Your task to perform on an android device: star an email in the gmail app Image 0: 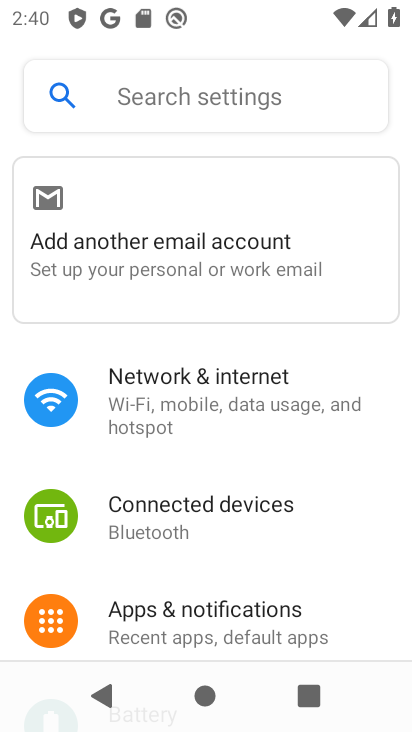
Step 0: press home button
Your task to perform on an android device: star an email in the gmail app Image 1: 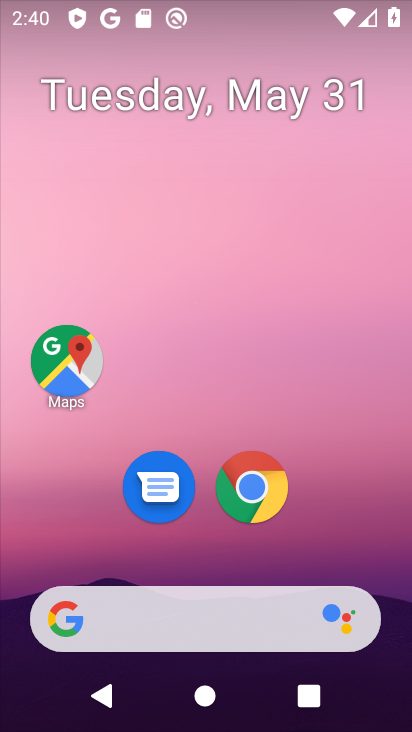
Step 1: drag from (37, 580) to (248, 130)
Your task to perform on an android device: star an email in the gmail app Image 2: 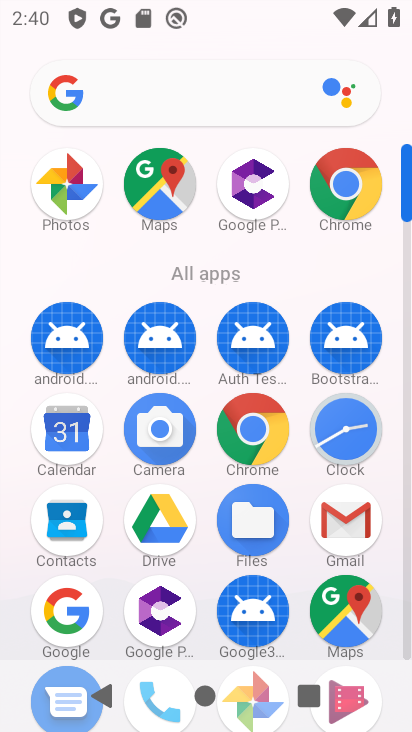
Step 2: drag from (142, 632) to (246, 383)
Your task to perform on an android device: star an email in the gmail app Image 3: 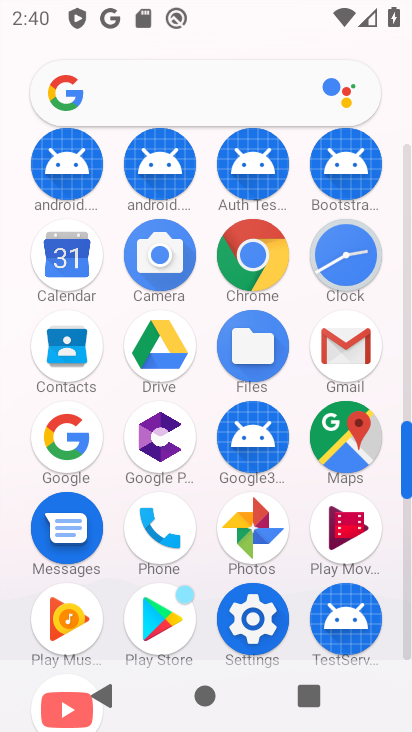
Step 3: click (344, 348)
Your task to perform on an android device: star an email in the gmail app Image 4: 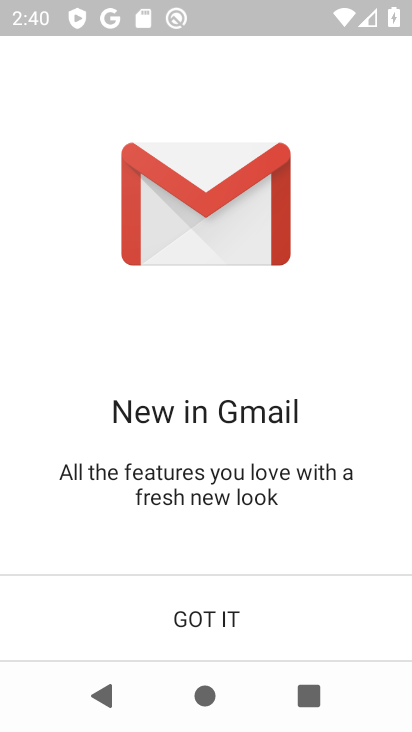
Step 4: click (237, 646)
Your task to perform on an android device: star an email in the gmail app Image 5: 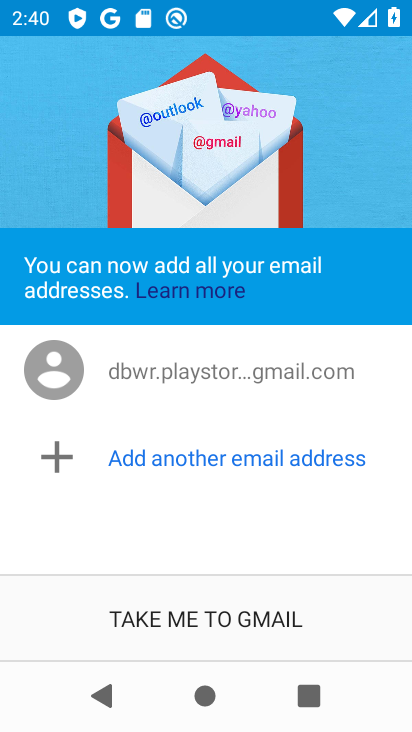
Step 5: click (237, 646)
Your task to perform on an android device: star an email in the gmail app Image 6: 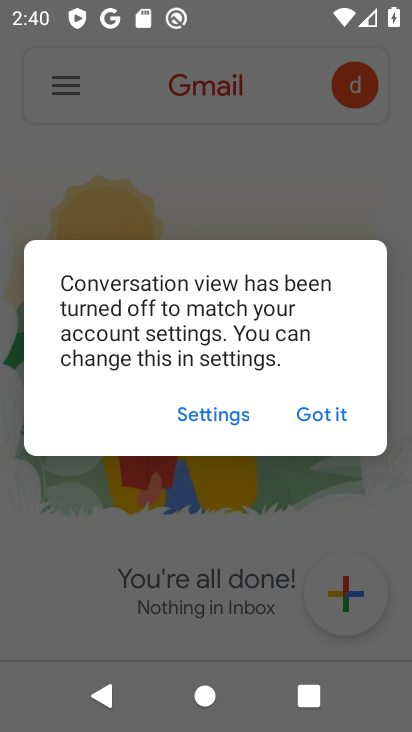
Step 6: click (354, 422)
Your task to perform on an android device: star an email in the gmail app Image 7: 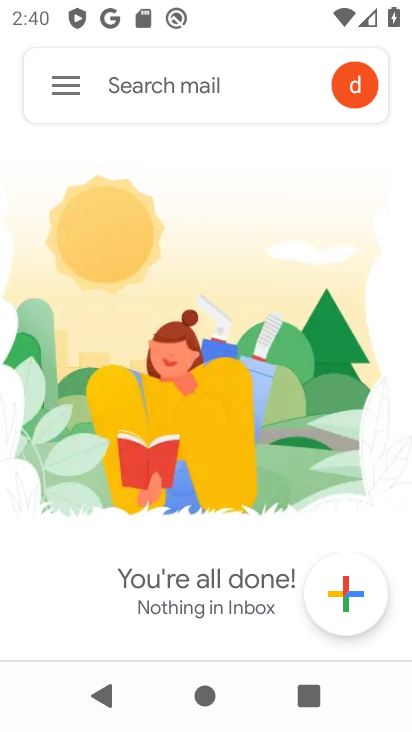
Step 7: click (81, 96)
Your task to perform on an android device: star an email in the gmail app Image 8: 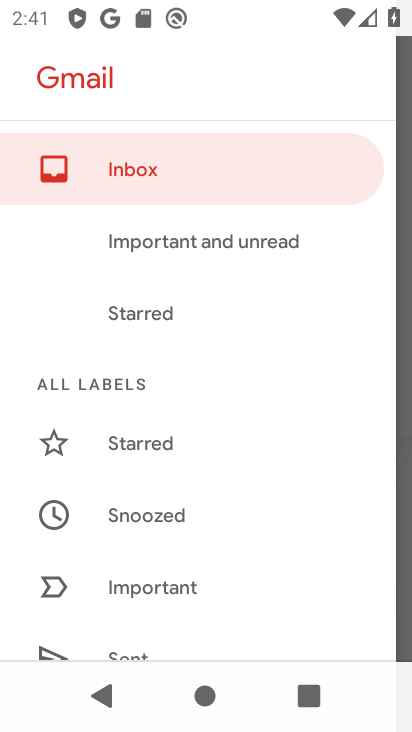
Step 8: drag from (240, 552) to (327, 151)
Your task to perform on an android device: star an email in the gmail app Image 9: 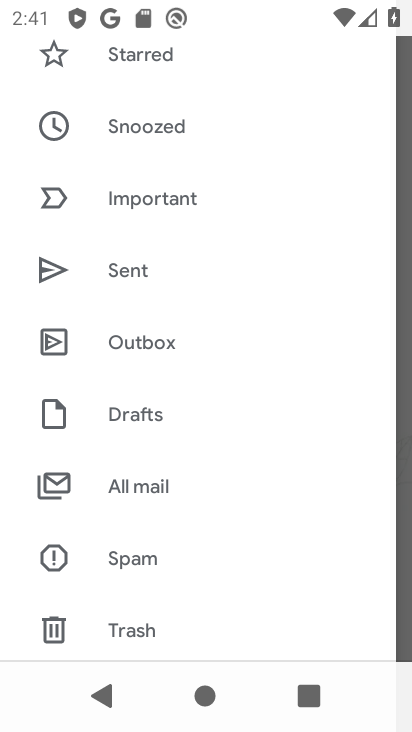
Step 9: click (206, 492)
Your task to perform on an android device: star an email in the gmail app Image 10: 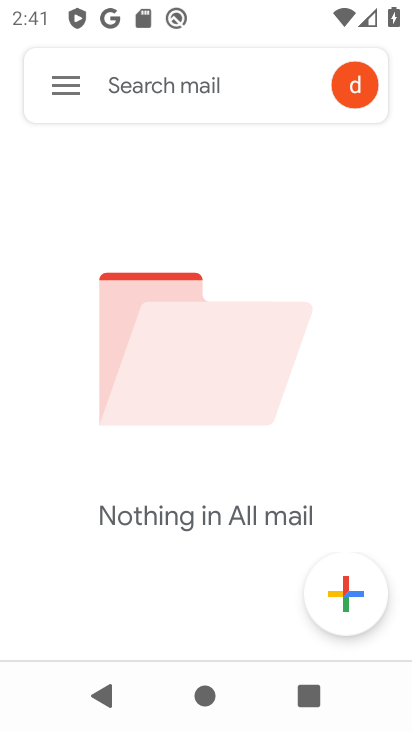
Step 10: task complete